Your task to perform on an android device: Open Chrome and go to the settings page Image 0: 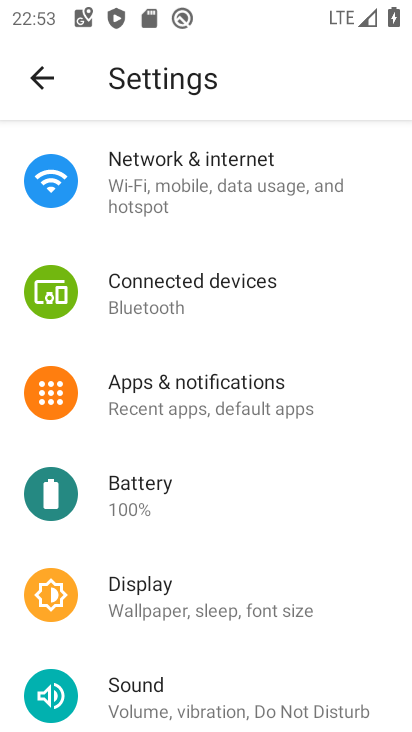
Step 0: press home button
Your task to perform on an android device: Open Chrome and go to the settings page Image 1: 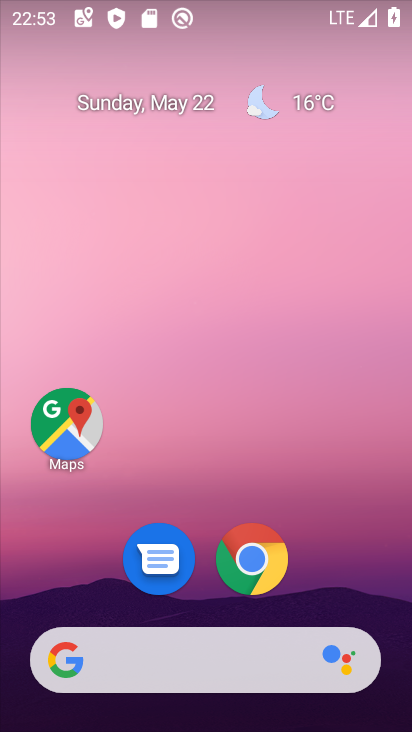
Step 1: drag from (252, 709) to (252, 5)
Your task to perform on an android device: Open Chrome and go to the settings page Image 2: 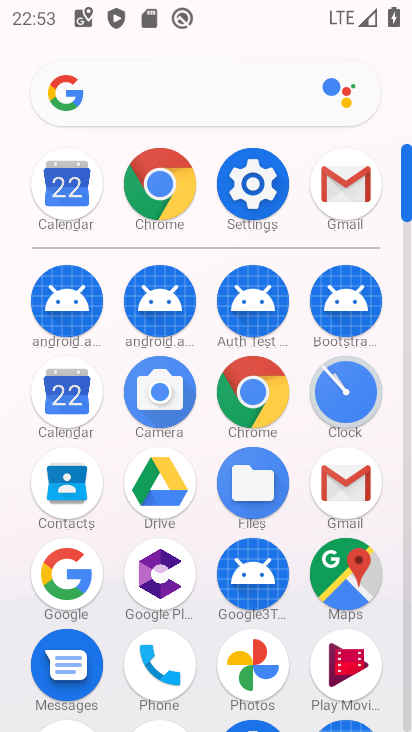
Step 2: click (151, 189)
Your task to perform on an android device: Open Chrome and go to the settings page Image 3: 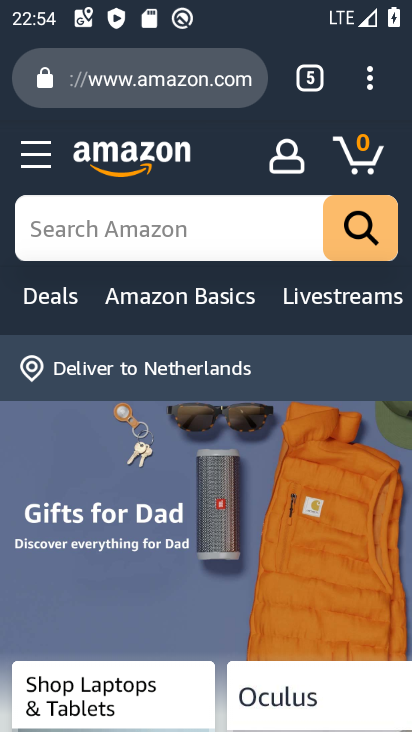
Step 3: click (363, 94)
Your task to perform on an android device: Open Chrome and go to the settings page Image 4: 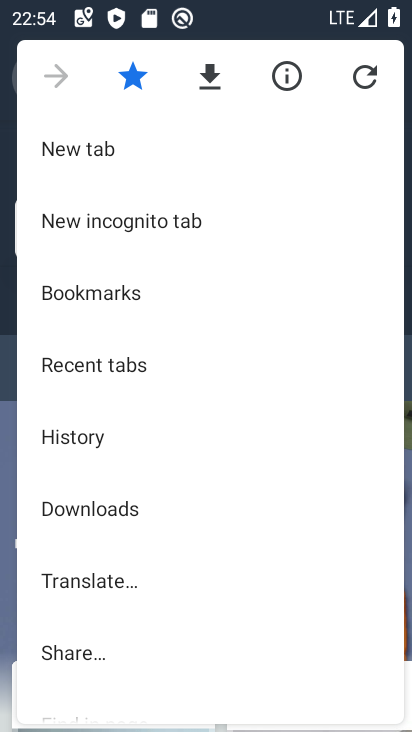
Step 4: drag from (212, 557) to (264, 166)
Your task to perform on an android device: Open Chrome and go to the settings page Image 5: 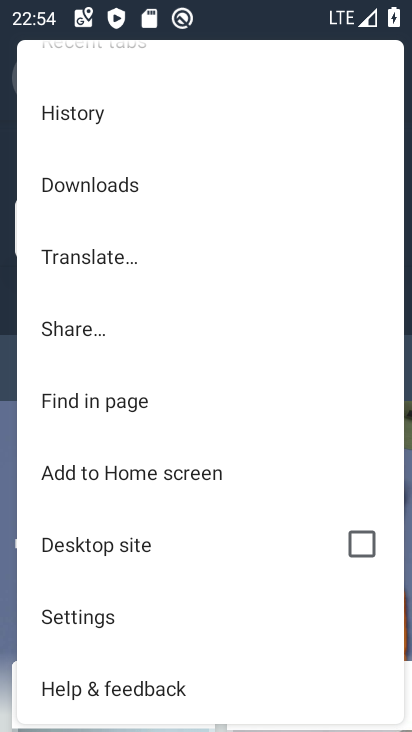
Step 5: click (97, 612)
Your task to perform on an android device: Open Chrome and go to the settings page Image 6: 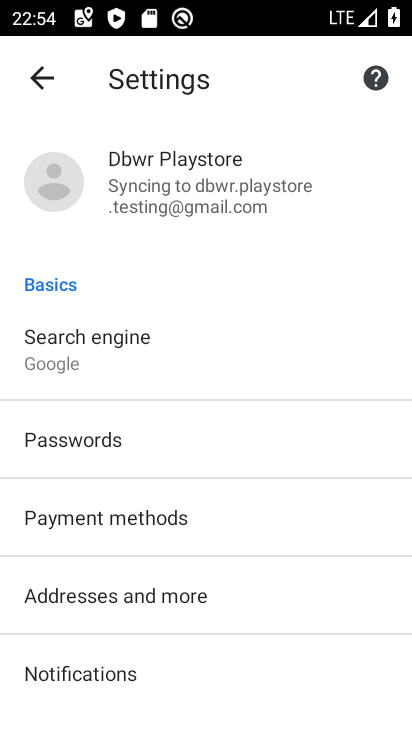
Step 6: task complete